Your task to perform on an android device: Go to Android settings Image 0: 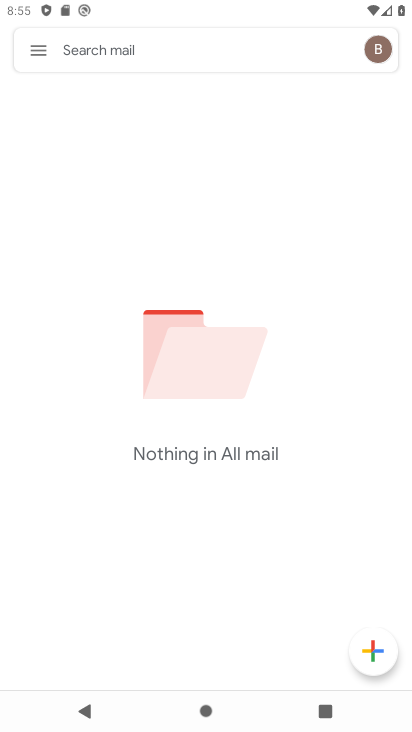
Step 0: press home button
Your task to perform on an android device: Go to Android settings Image 1: 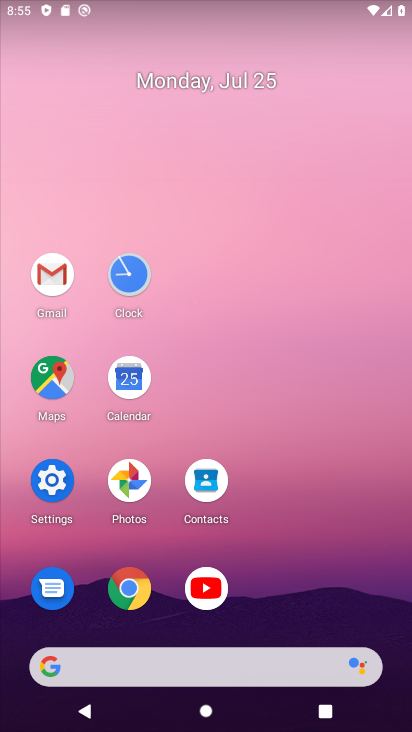
Step 1: click (52, 478)
Your task to perform on an android device: Go to Android settings Image 2: 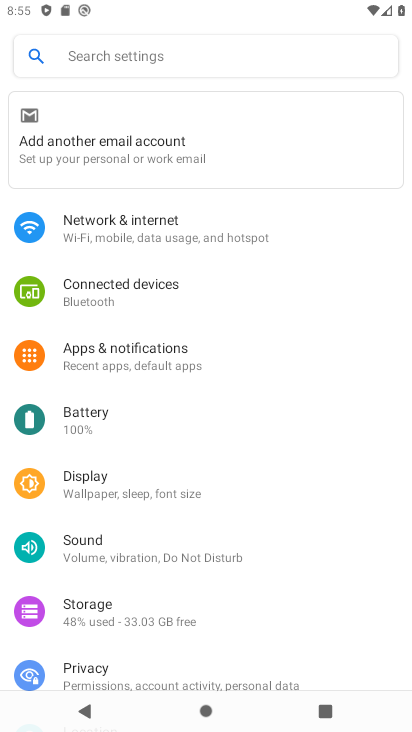
Step 2: task complete